Your task to perform on an android device: open app "Facebook Lite" (install if not already installed) and enter user name: "suppers@inbox.com" and password: "downplayed" Image 0: 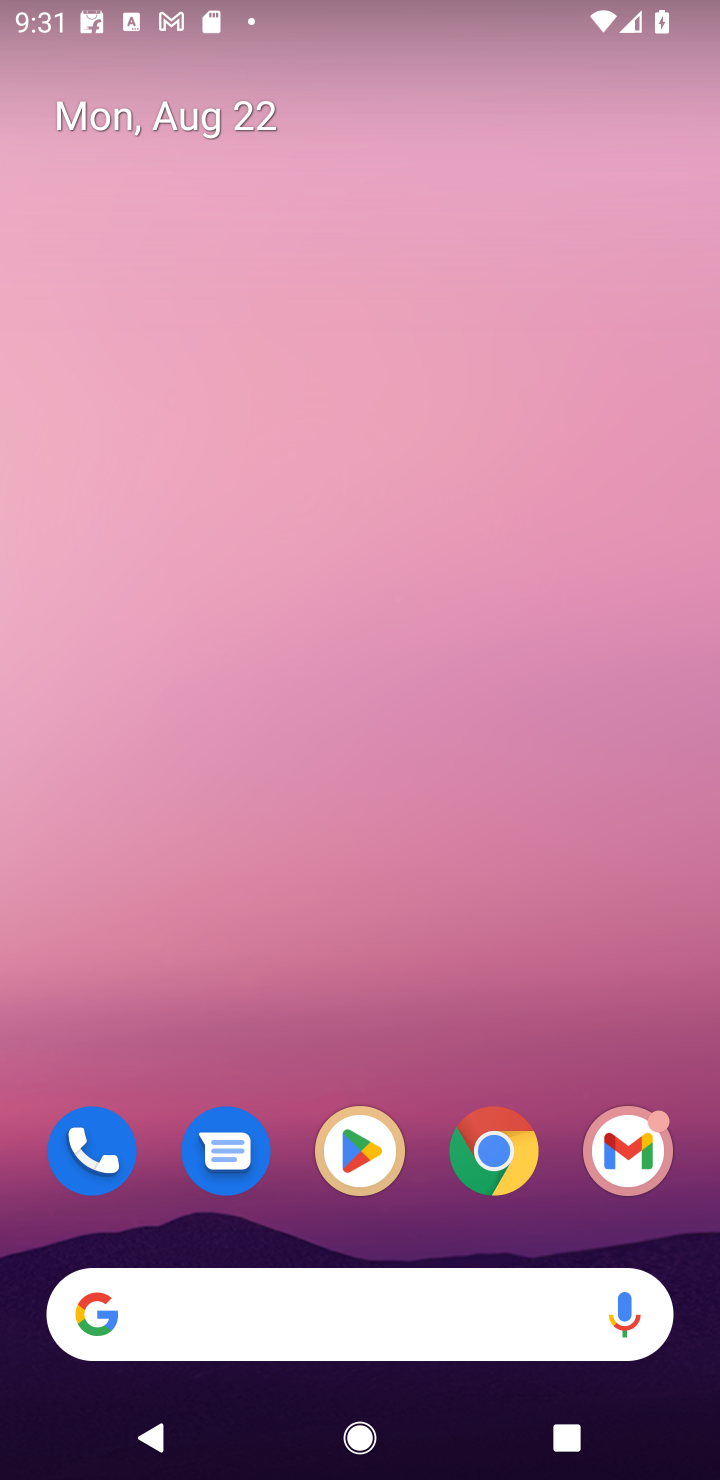
Step 0: press home button
Your task to perform on an android device: open app "Facebook Lite" (install if not already installed) and enter user name: "suppers@inbox.com" and password: "downplayed" Image 1: 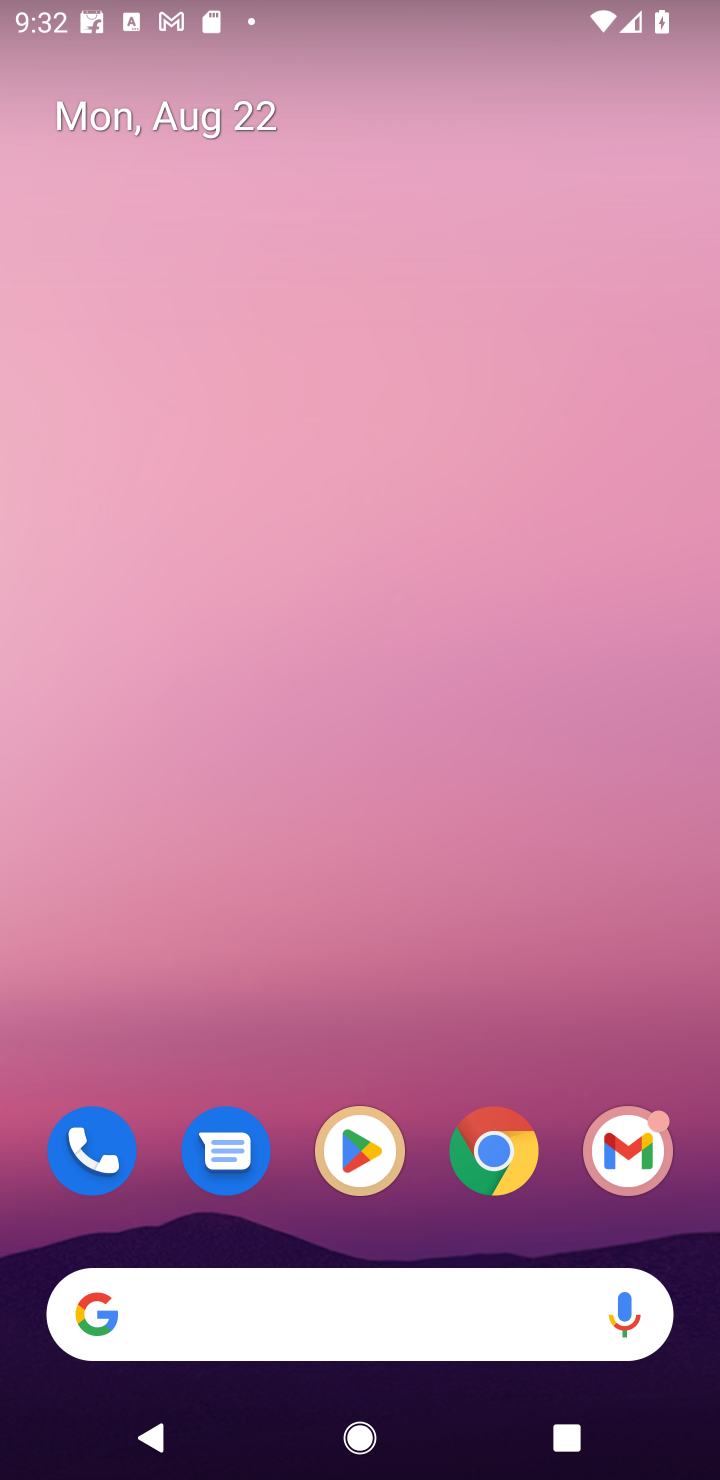
Step 1: click (353, 1161)
Your task to perform on an android device: open app "Facebook Lite" (install if not already installed) and enter user name: "suppers@inbox.com" and password: "downplayed" Image 2: 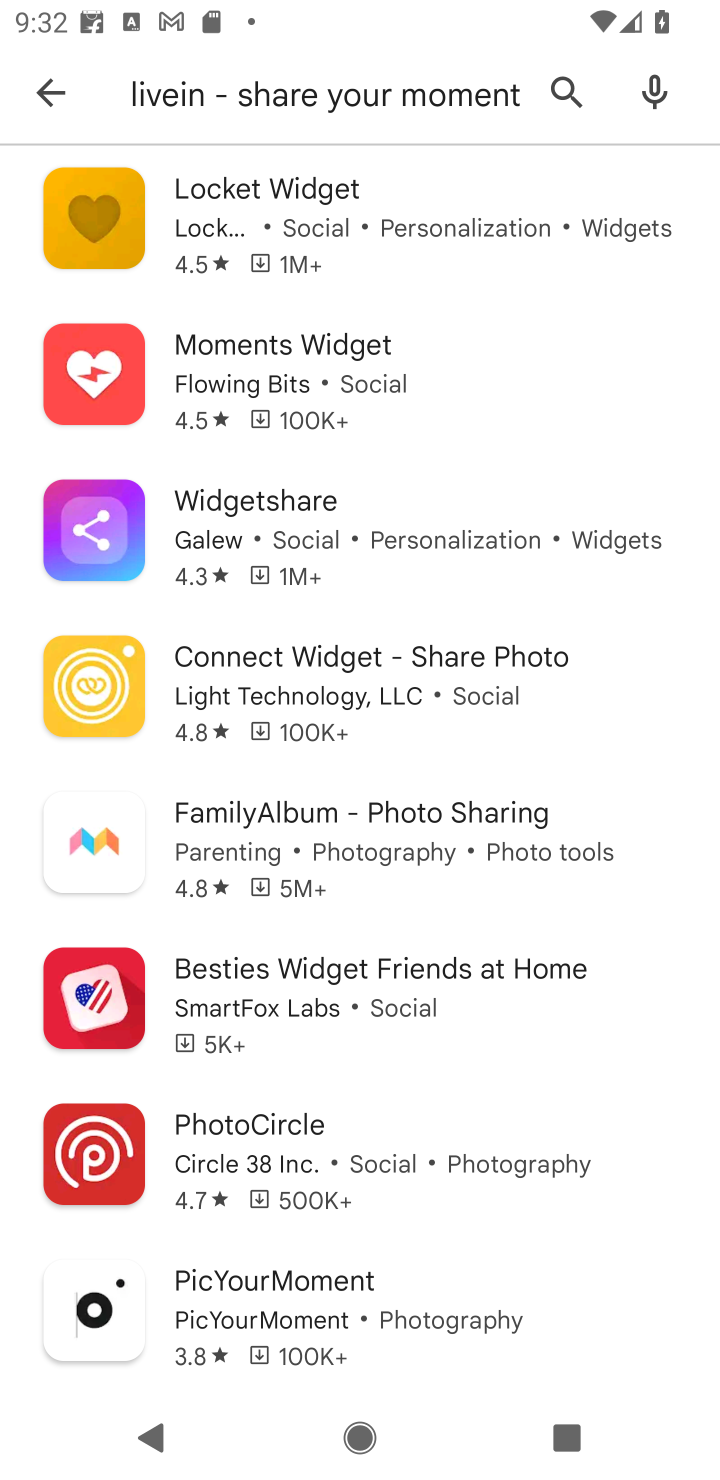
Step 2: click (576, 78)
Your task to perform on an android device: open app "Facebook Lite" (install if not already installed) and enter user name: "suppers@inbox.com" and password: "downplayed" Image 3: 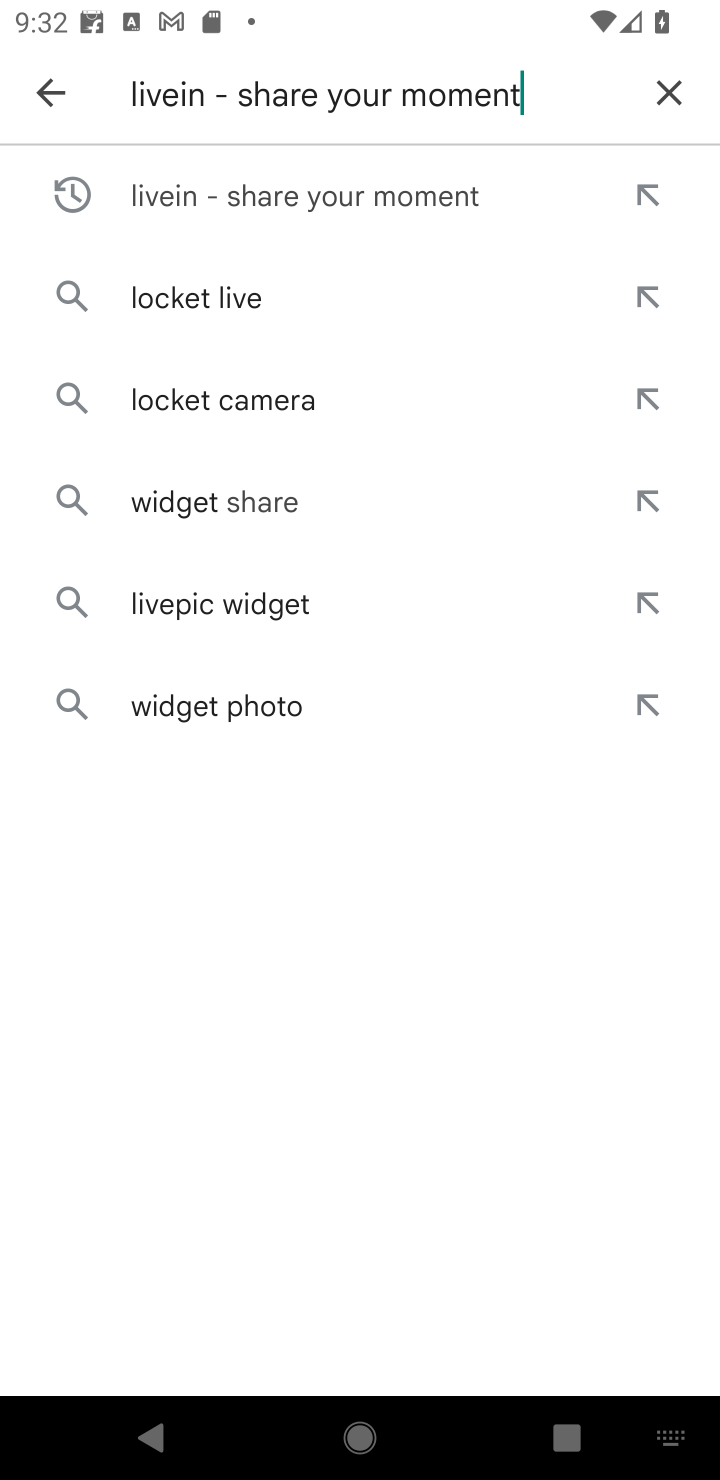
Step 3: click (659, 80)
Your task to perform on an android device: open app "Facebook Lite" (install if not already installed) and enter user name: "suppers@inbox.com" and password: "downplayed" Image 4: 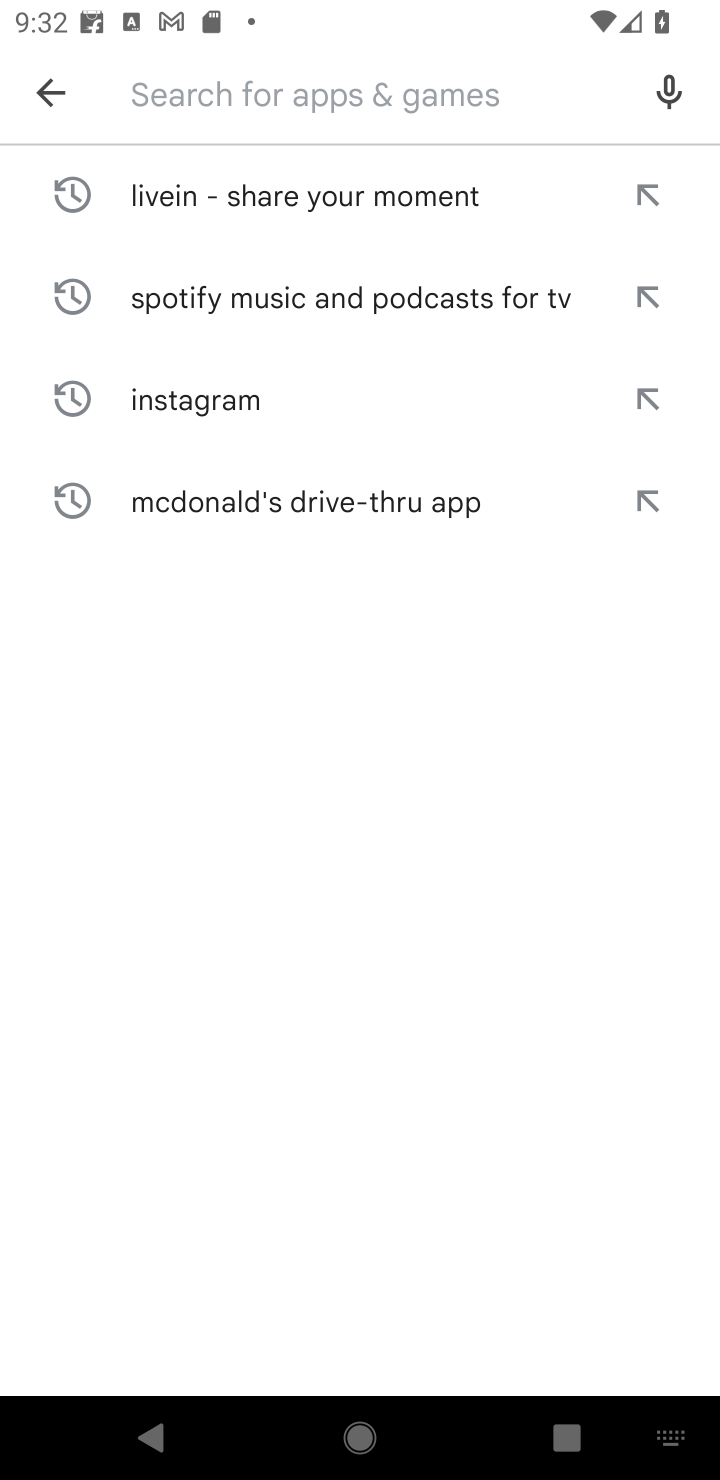
Step 4: type "Facebook Lite"
Your task to perform on an android device: open app "Facebook Lite" (install if not already installed) and enter user name: "suppers@inbox.com" and password: "downplayed" Image 5: 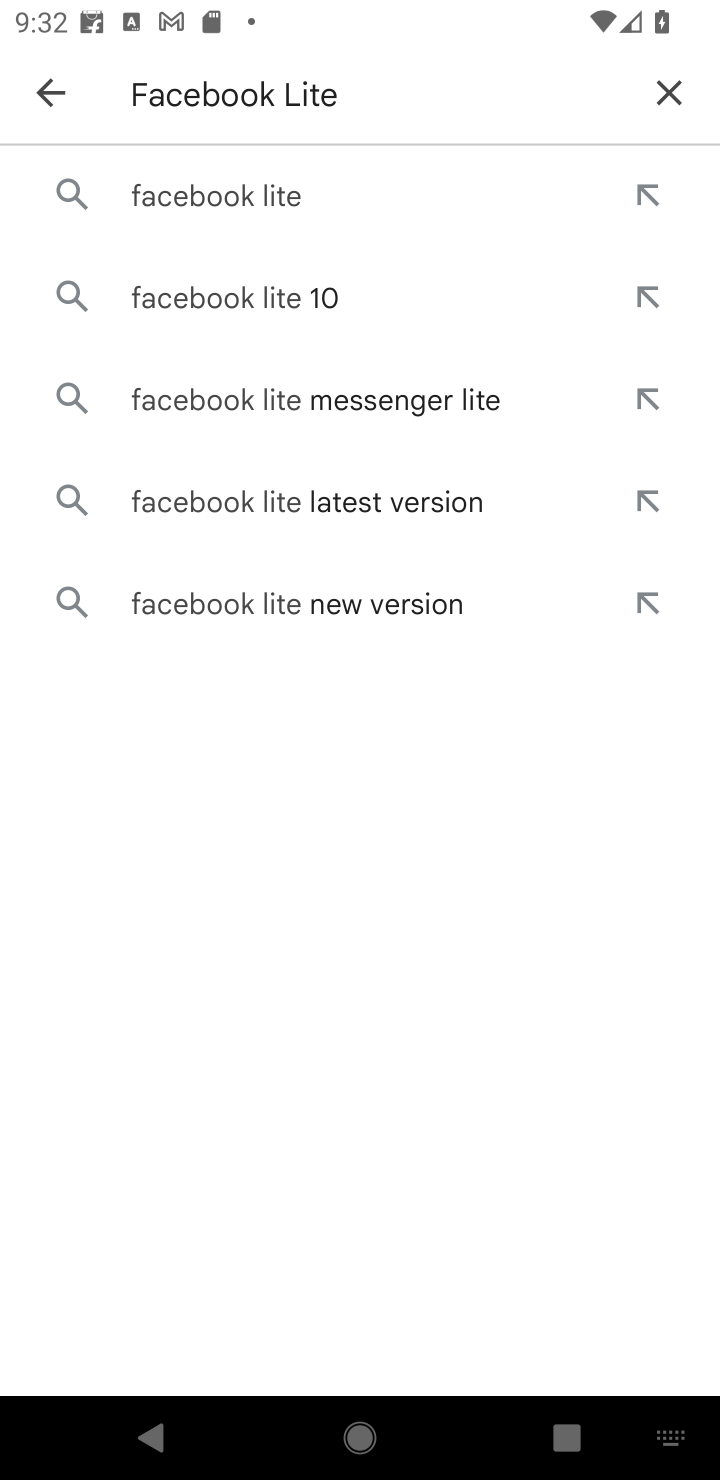
Step 5: click (231, 206)
Your task to perform on an android device: open app "Facebook Lite" (install if not already installed) and enter user name: "suppers@inbox.com" and password: "downplayed" Image 6: 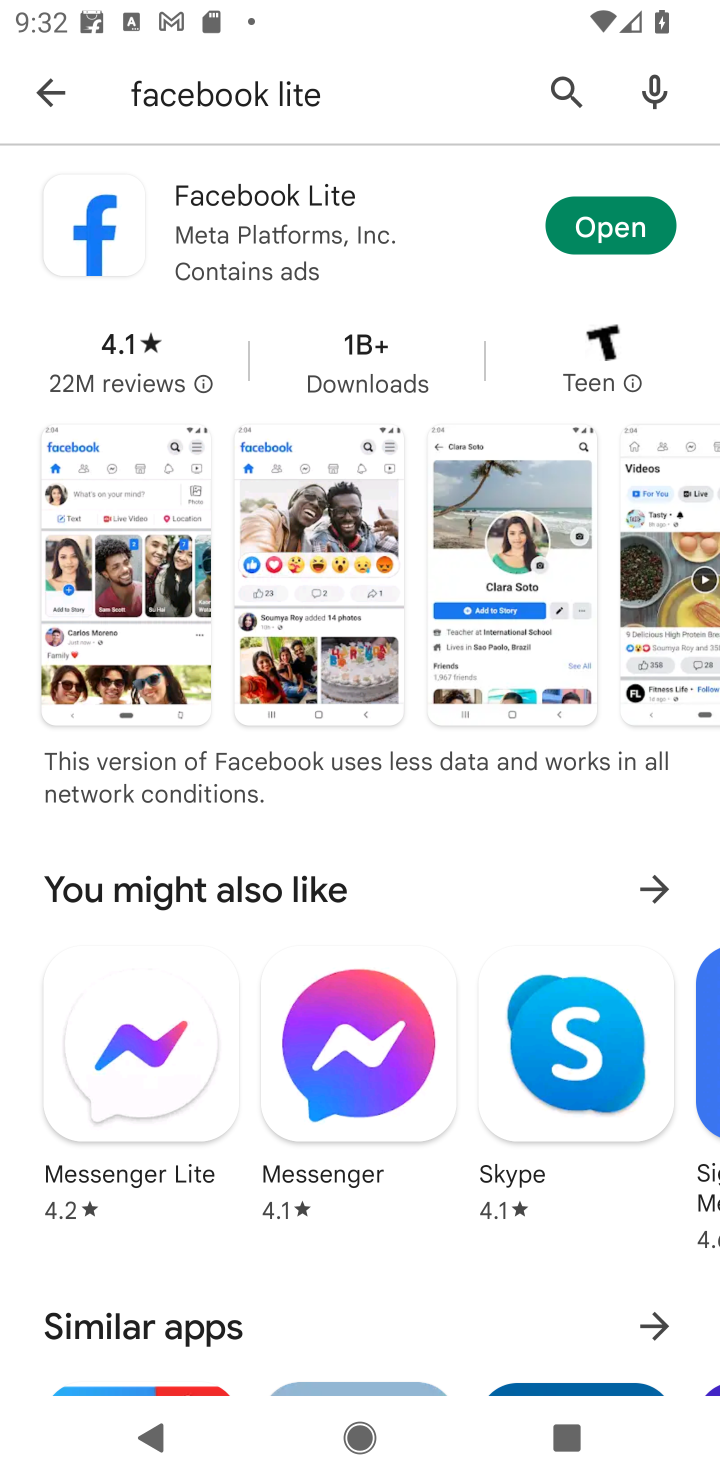
Step 6: click (595, 233)
Your task to perform on an android device: open app "Facebook Lite" (install if not already installed) and enter user name: "suppers@inbox.com" and password: "downplayed" Image 7: 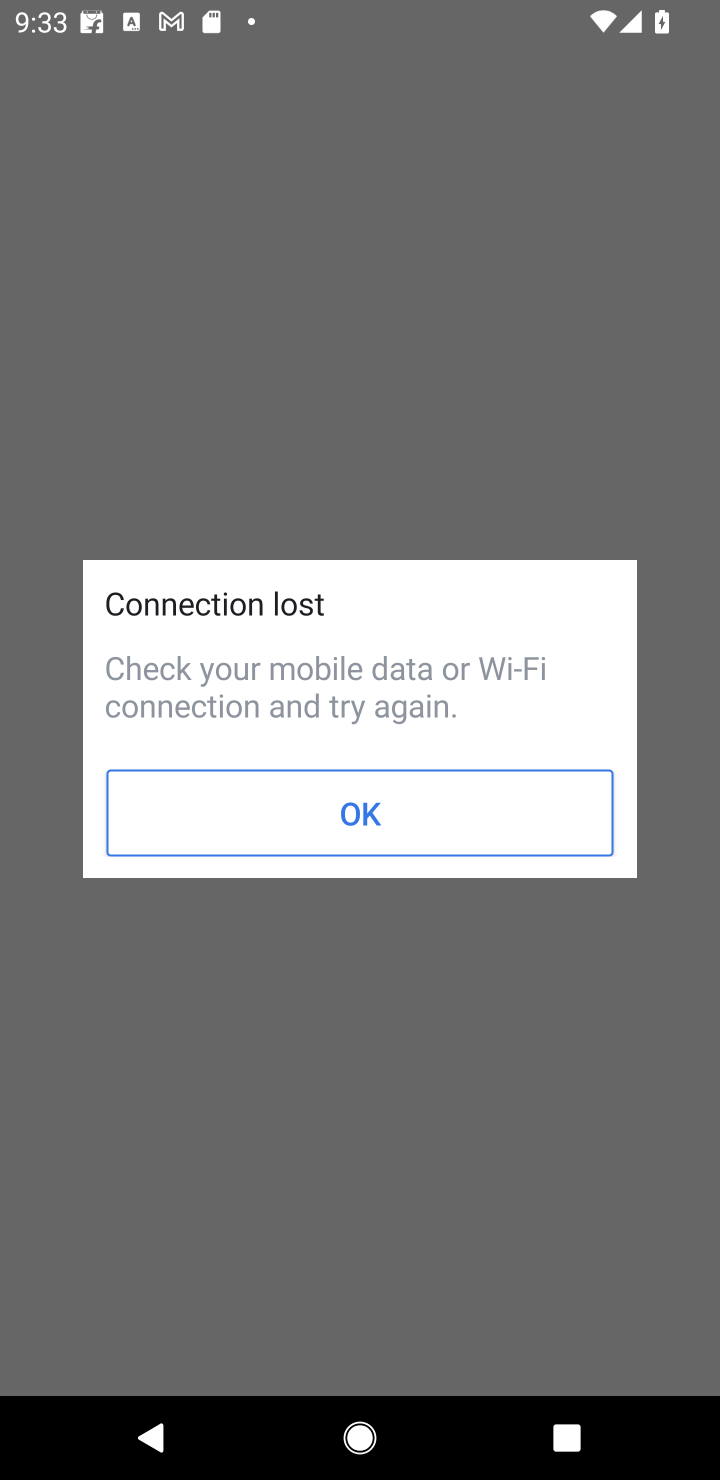
Step 7: task complete